Your task to perform on an android device: set the timer Image 0: 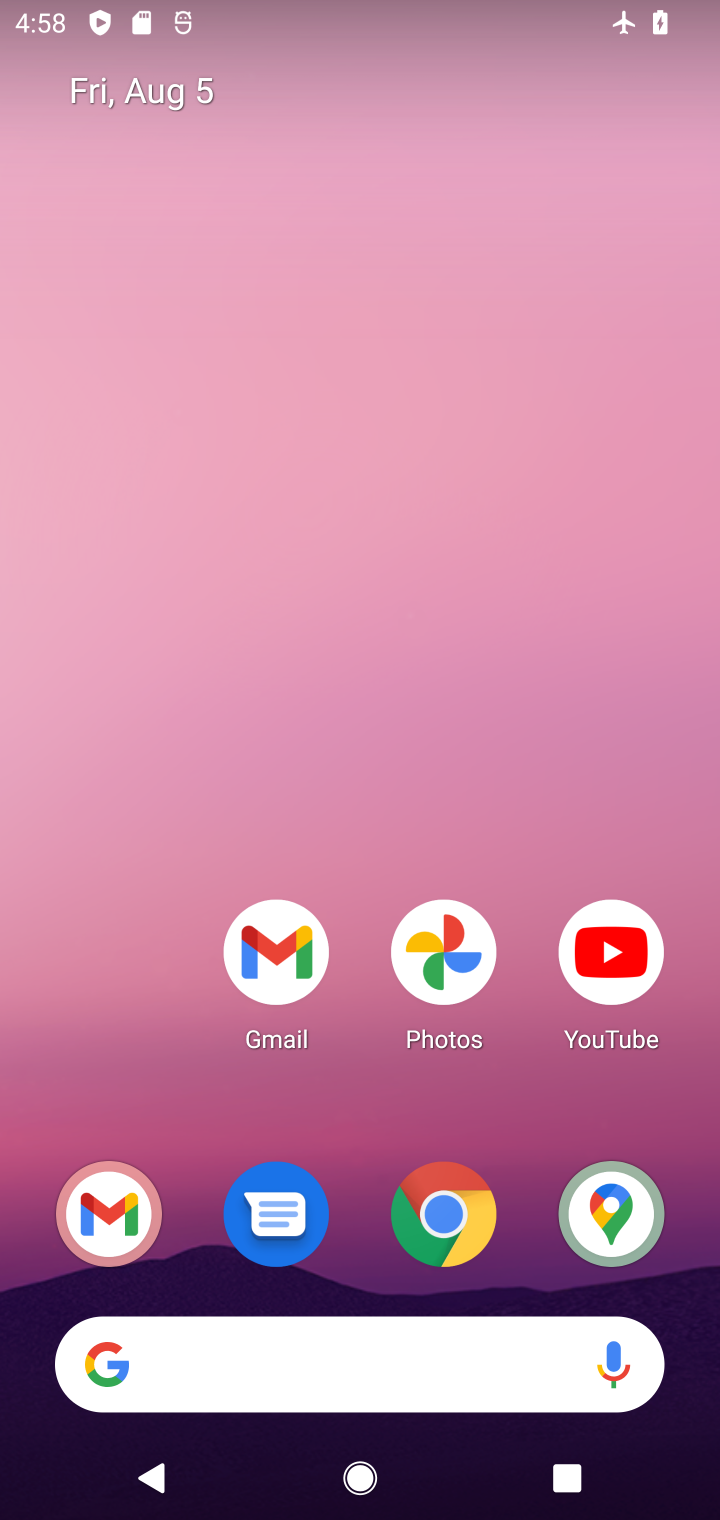
Step 0: drag from (163, 1014) to (216, 38)
Your task to perform on an android device: set the timer Image 1: 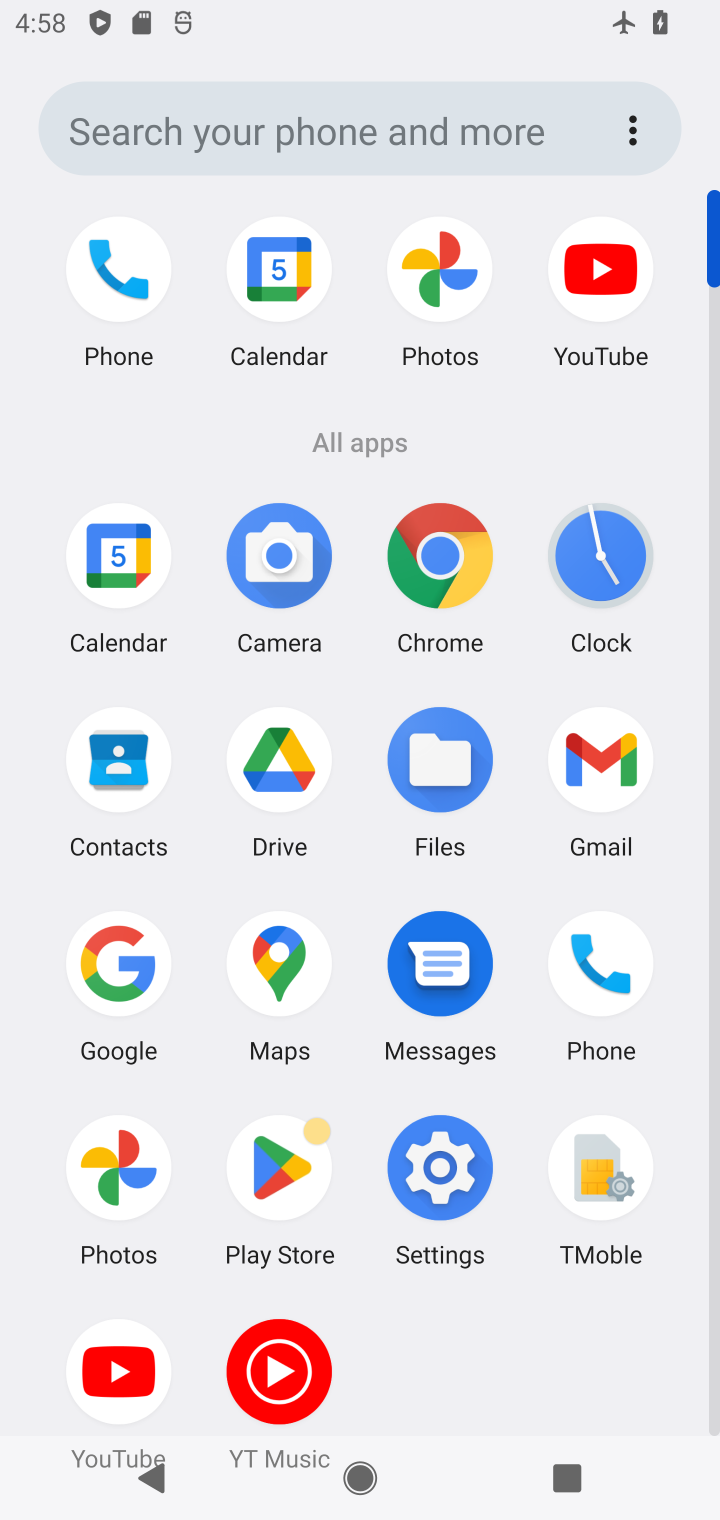
Step 1: click (606, 567)
Your task to perform on an android device: set the timer Image 2: 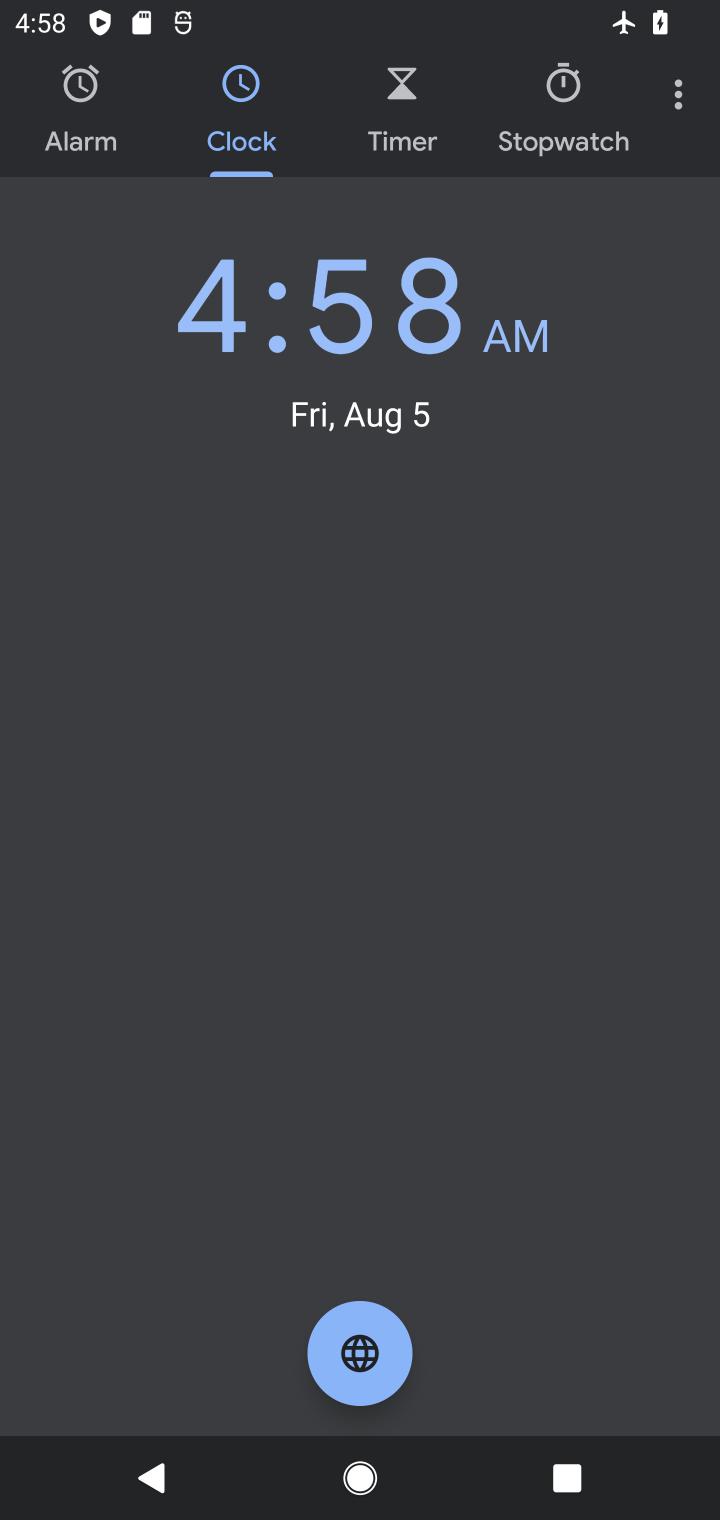
Step 2: click (407, 112)
Your task to perform on an android device: set the timer Image 3: 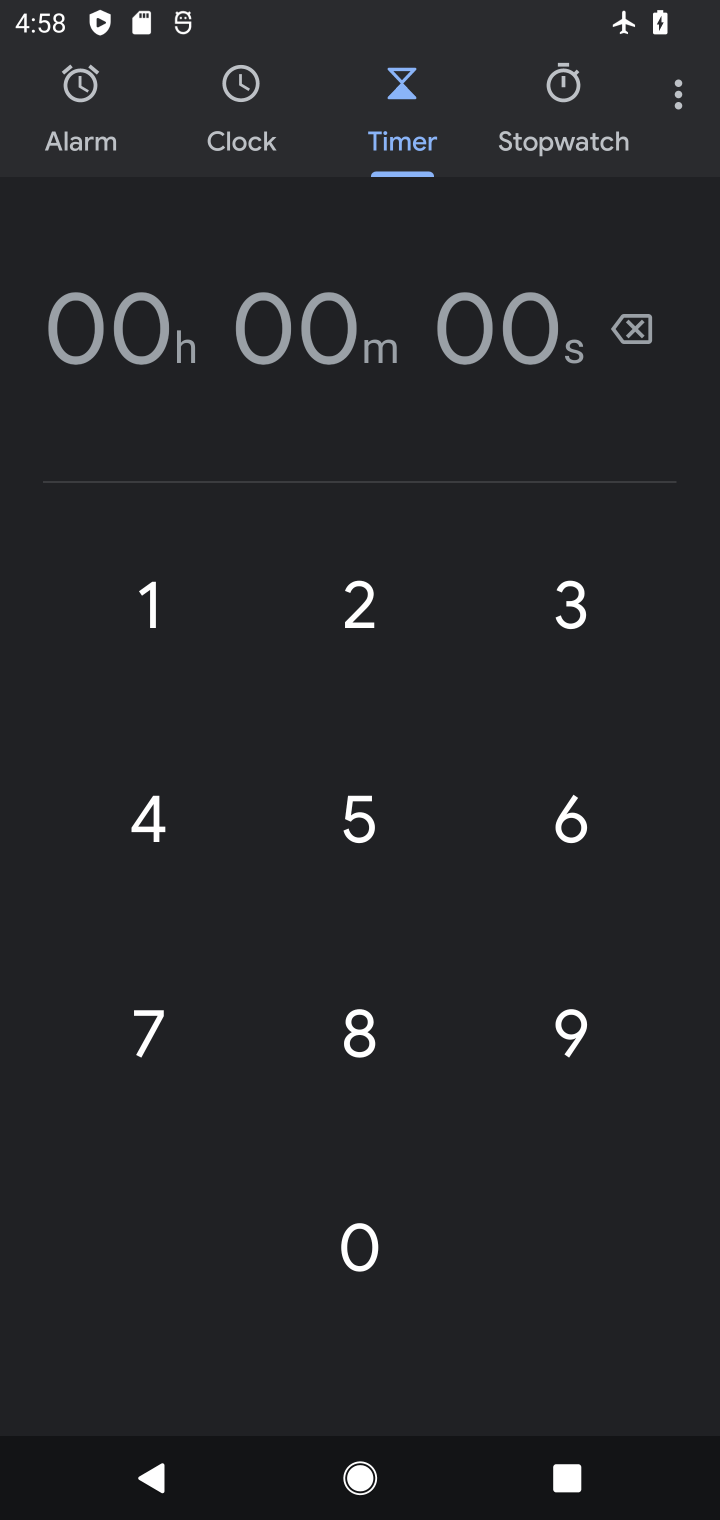
Step 3: click (166, 607)
Your task to perform on an android device: set the timer Image 4: 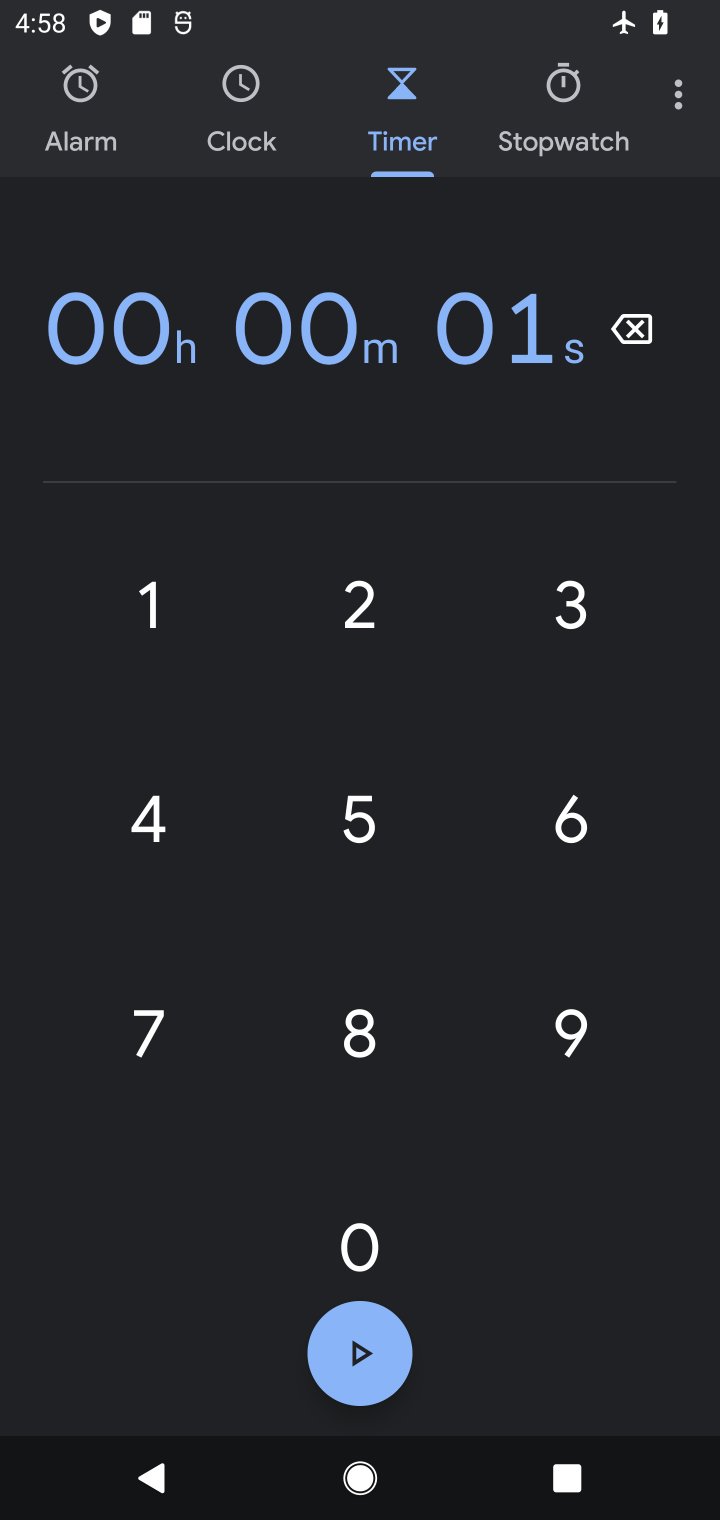
Step 4: task complete